Your task to perform on an android device: Open eBay Image 0: 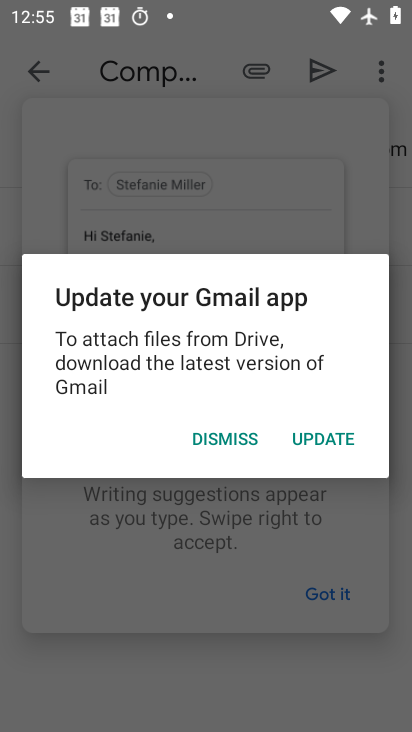
Step 0: press home button
Your task to perform on an android device: Open eBay Image 1: 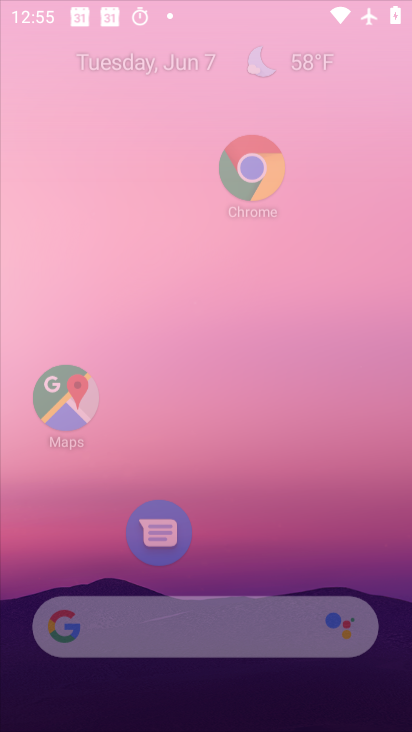
Step 1: press home button
Your task to perform on an android device: Open eBay Image 2: 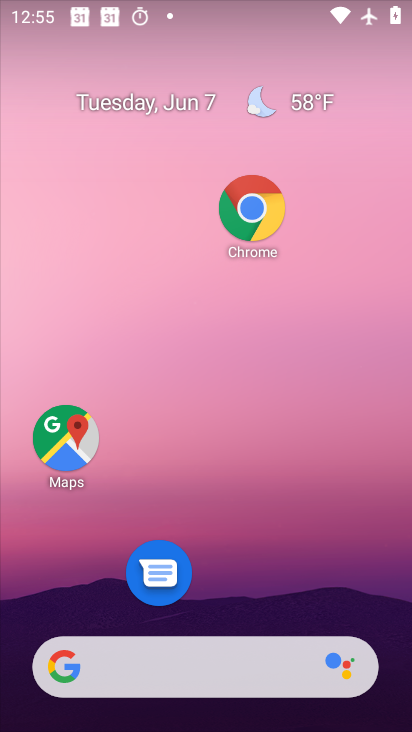
Step 2: click (247, 201)
Your task to perform on an android device: Open eBay Image 3: 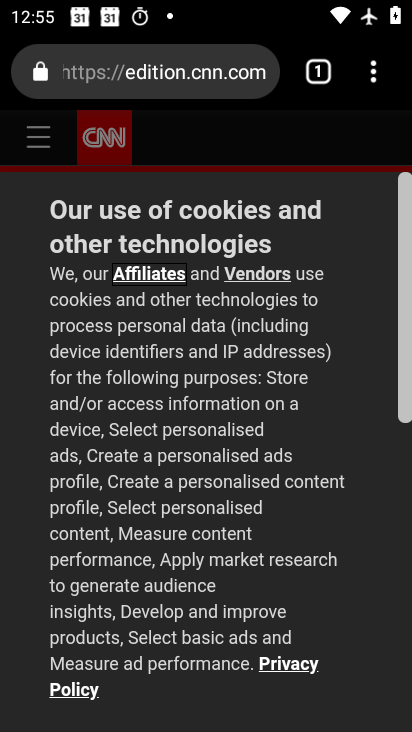
Step 3: click (327, 79)
Your task to perform on an android device: Open eBay Image 4: 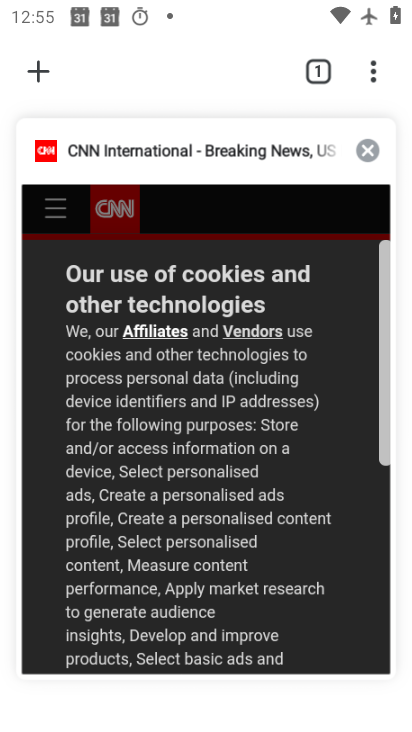
Step 4: click (31, 69)
Your task to perform on an android device: Open eBay Image 5: 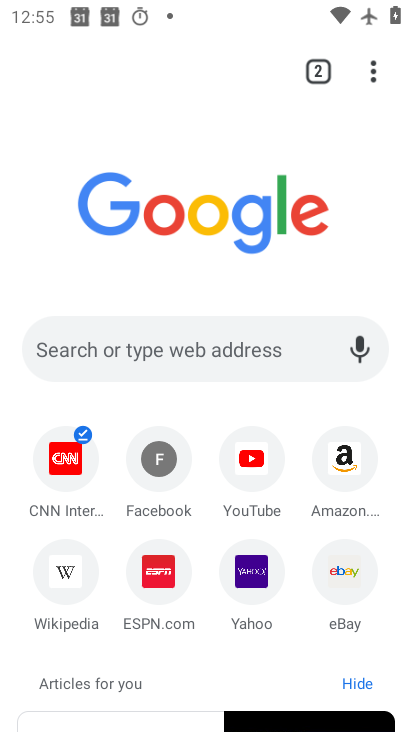
Step 5: click (200, 351)
Your task to perform on an android device: Open eBay Image 6: 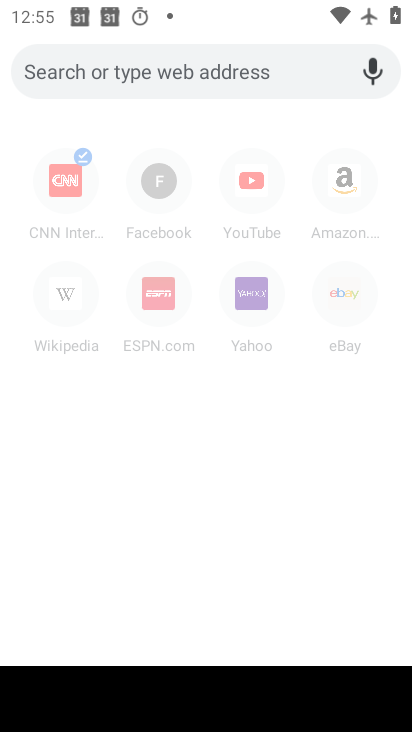
Step 6: click (351, 296)
Your task to perform on an android device: Open eBay Image 7: 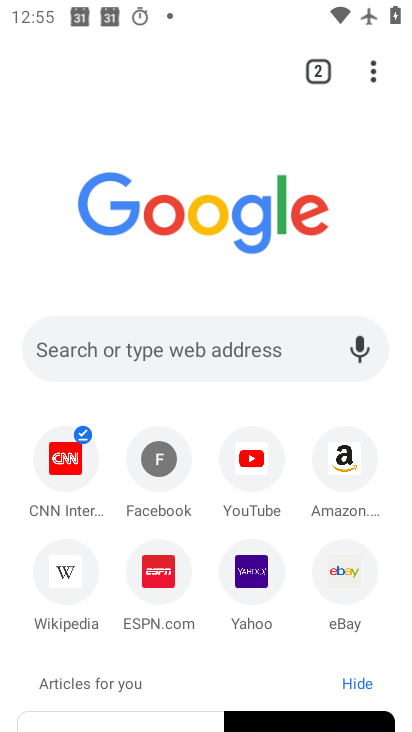
Step 7: click (362, 569)
Your task to perform on an android device: Open eBay Image 8: 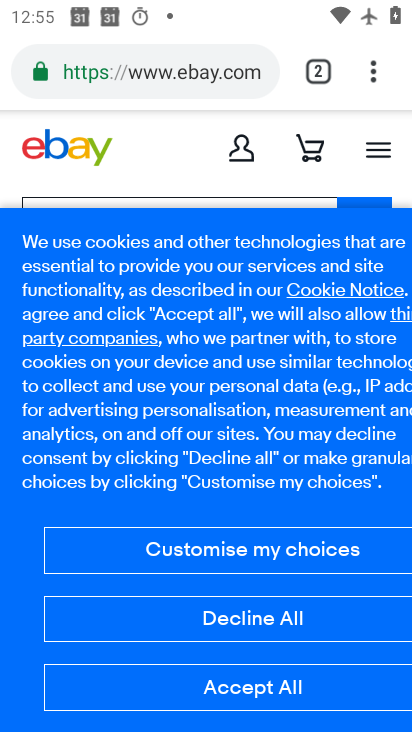
Step 8: task complete